Your task to perform on an android device: turn off notifications settings in the gmail app Image 0: 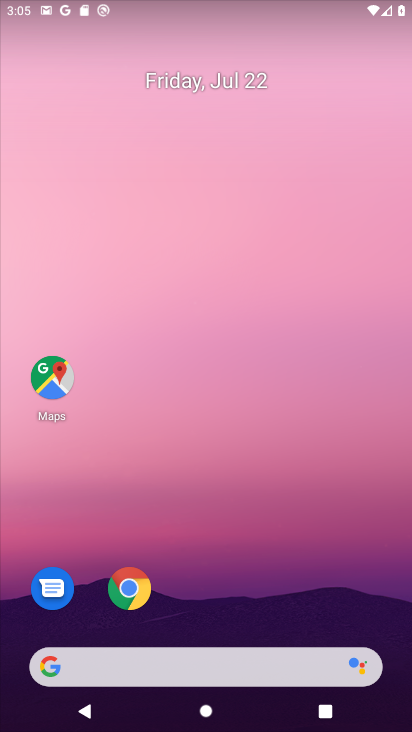
Step 0: drag from (334, 564) to (339, 409)
Your task to perform on an android device: turn off notifications settings in the gmail app Image 1: 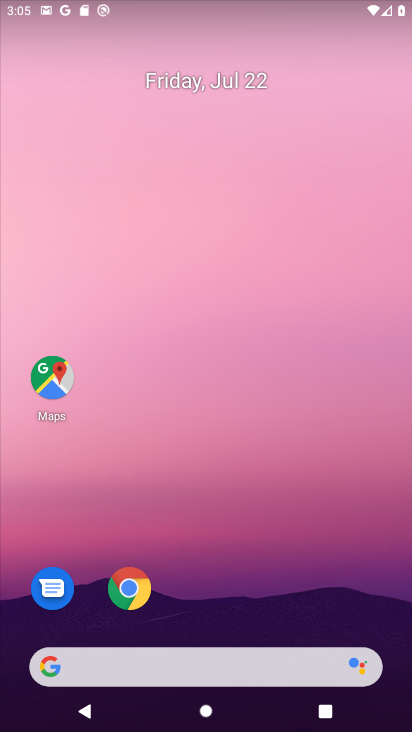
Step 1: drag from (376, 569) to (340, 49)
Your task to perform on an android device: turn off notifications settings in the gmail app Image 2: 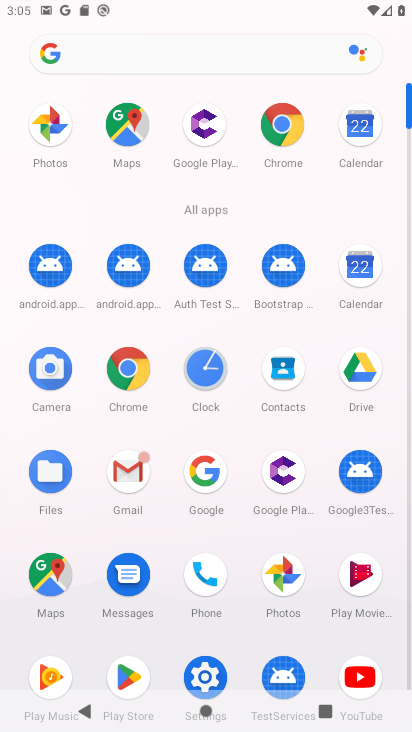
Step 2: click (139, 464)
Your task to perform on an android device: turn off notifications settings in the gmail app Image 3: 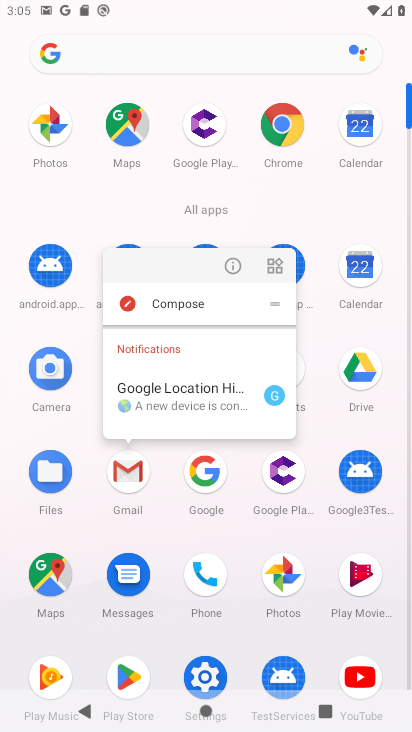
Step 3: click (237, 258)
Your task to perform on an android device: turn off notifications settings in the gmail app Image 4: 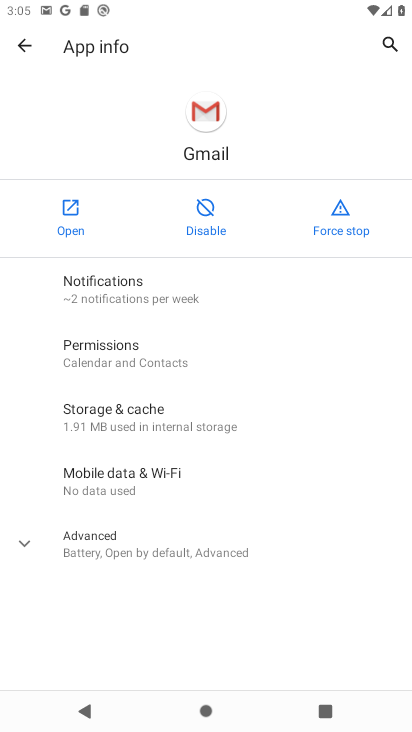
Step 4: click (165, 297)
Your task to perform on an android device: turn off notifications settings in the gmail app Image 5: 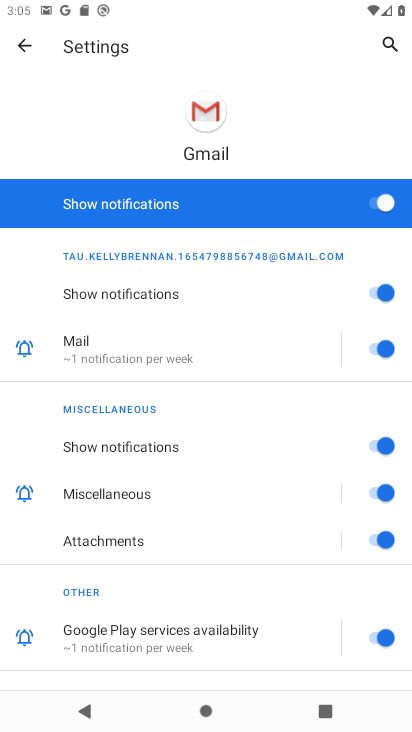
Step 5: click (250, 190)
Your task to perform on an android device: turn off notifications settings in the gmail app Image 6: 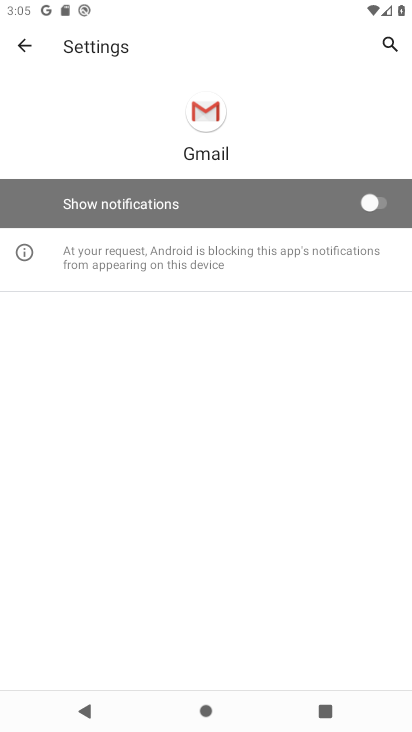
Step 6: task complete